Your task to perform on an android device: Open ESPN.com Image 0: 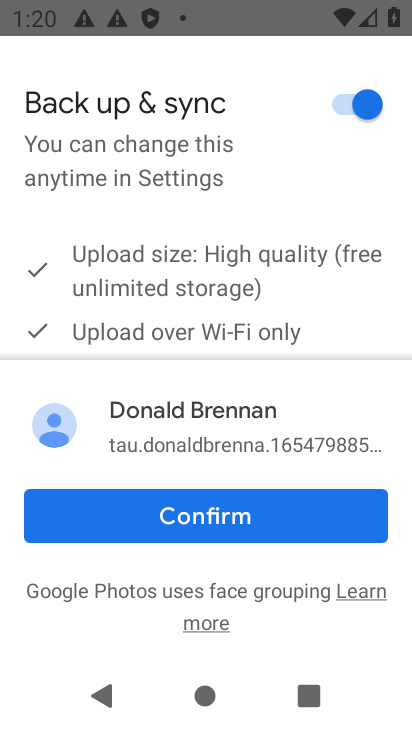
Step 0: press home button
Your task to perform on an android device: Open ESPN.com Image 1: 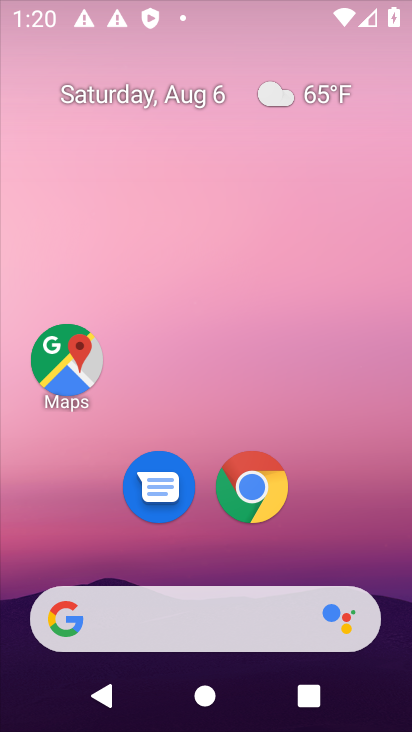
Step 1: drag from (300, 512) to (296, 50)
Your task to perform on an android device: Open ESPN.com Image 2: 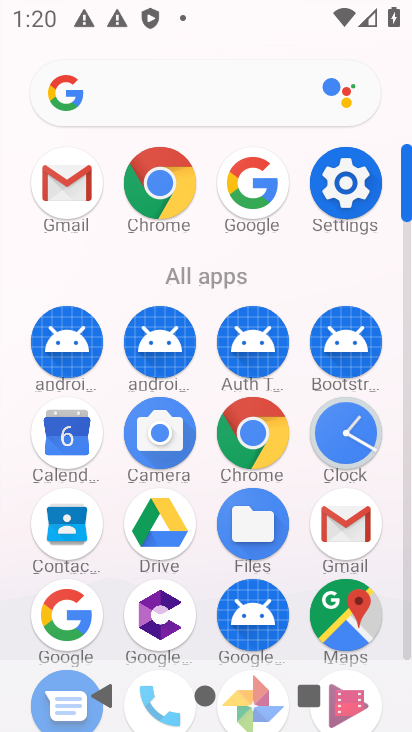
Step 2: click (157, 197)
Your task to perform on an android device: Open ESPN.com Image 3: 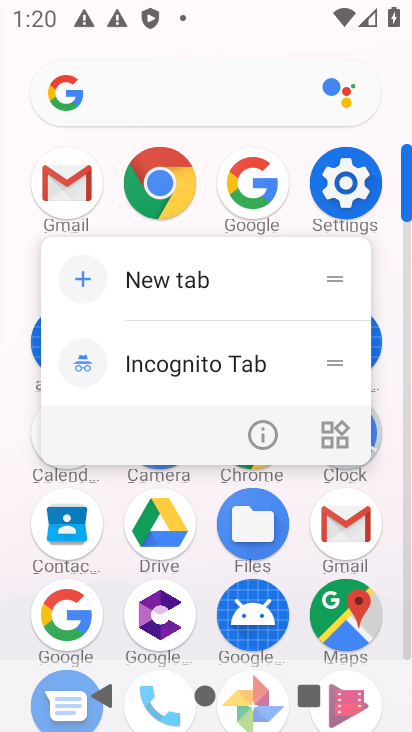
Step 3: click (157, 199)
Your task to perform on an android device: Open ESPN.com Image 4: 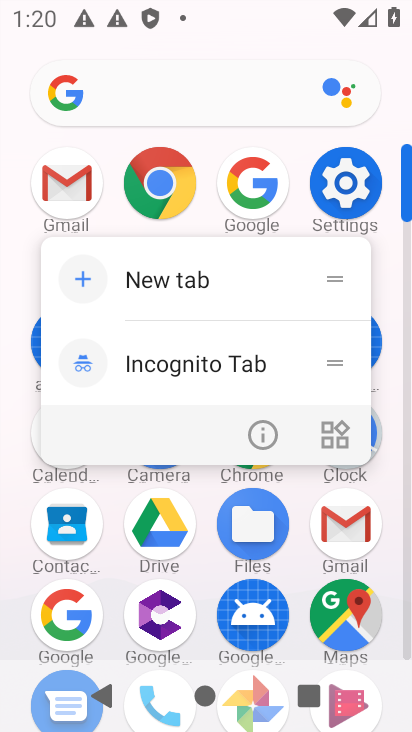
Step 4: click (157, 199)
Your task to perform on an android device: Open ESPN.com Image 5: 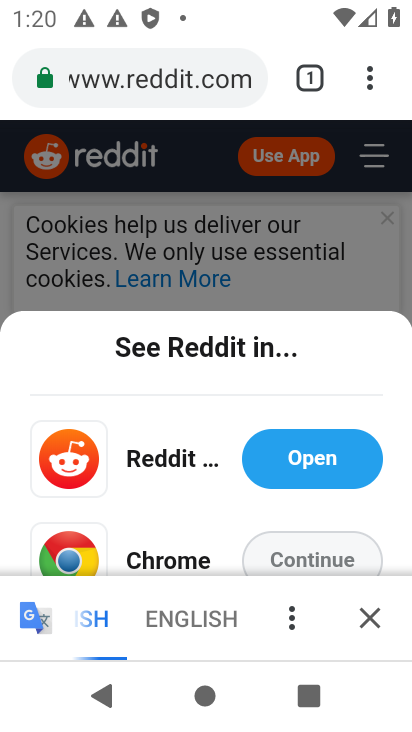
Step 5: click (232, 79)
Your task to perform on an android device: Open ESPN.com Image 6: 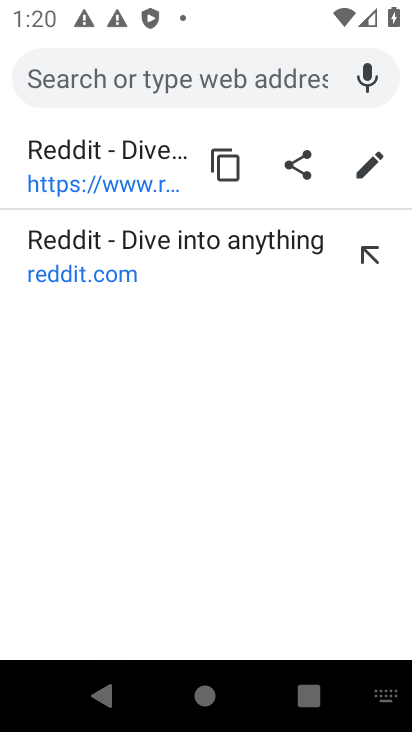
Step 6: type "ESPN.com"
Your task to perform on an android device: Open ESPN.com Image 7: 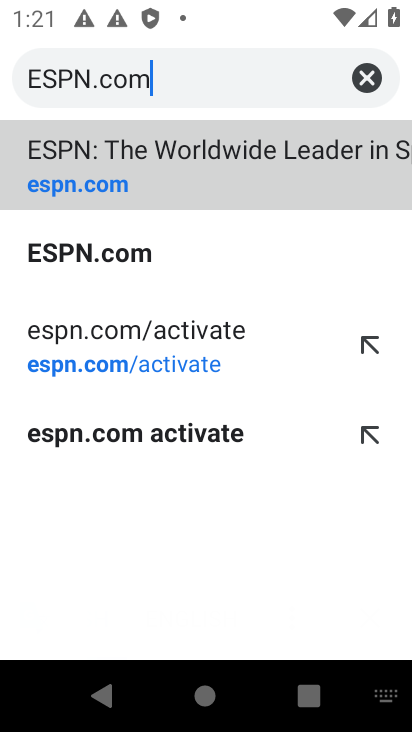
Step 7: click (137, 273)
Your task to perform on an android device: Open ESPN.com Image 8: 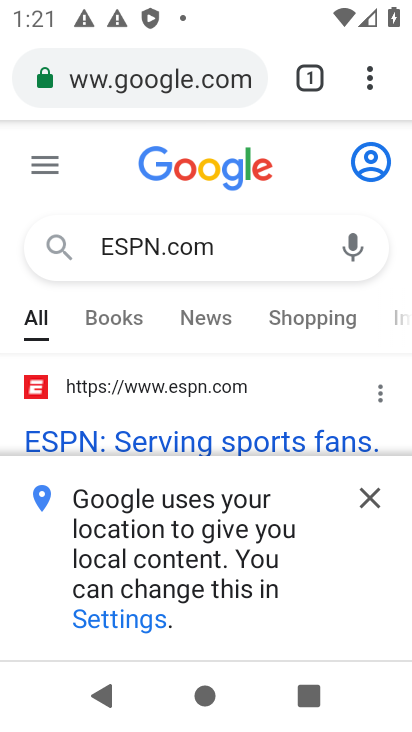
Step 8: task complete